Your task to perform on an android device: When is my next meeting? Image 0: 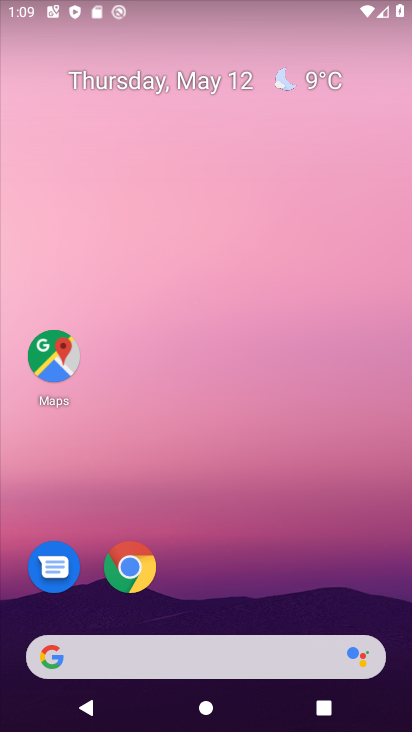
Step 0: drag from (210, 583) to (258, 114)
Your task to perform on an android device: When is my next meeting? Image 1: 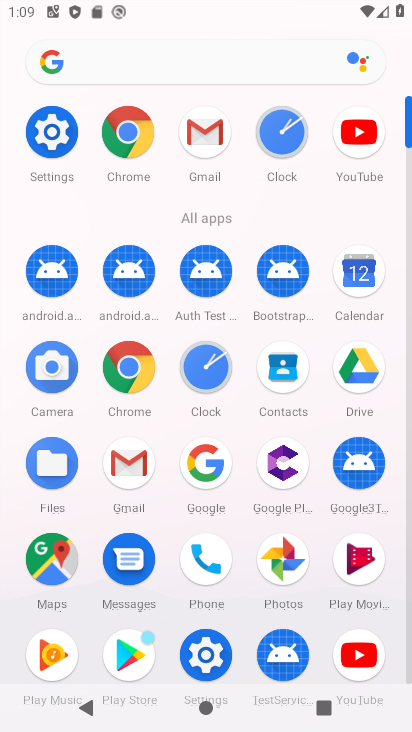
Step 1: click (358, 277)
Your task to perform on an android device: When is my next meeting? Image 2: 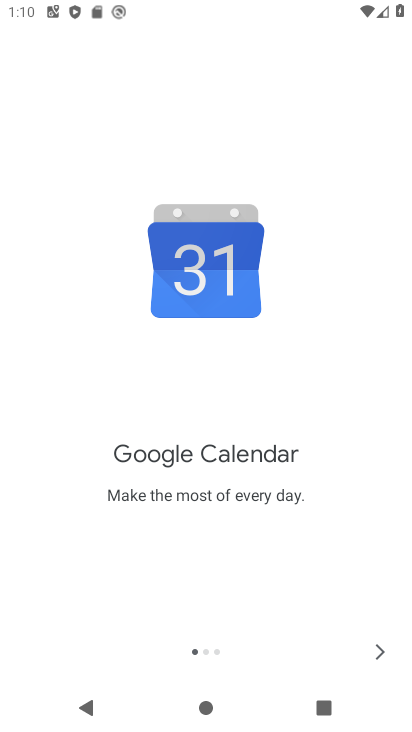
Step 2: click (382, 638)
Your task to perform on an android device: When is my next meeting? Image 3: 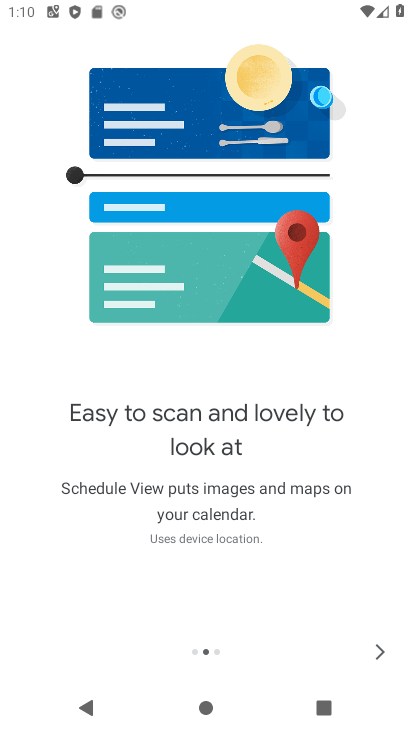
Step 3: click (372, 642)
Your task to perform on an android device: When is my next meeting? Image 4: 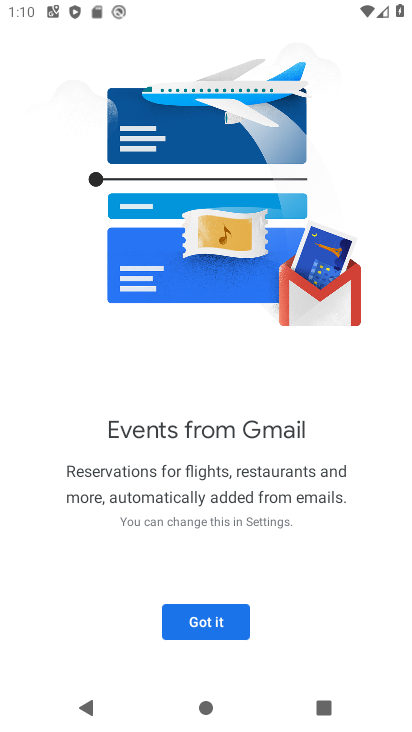
Step 4: click (209, 626)
Your task to perform on an android device: When is my next meeting? Image 5: 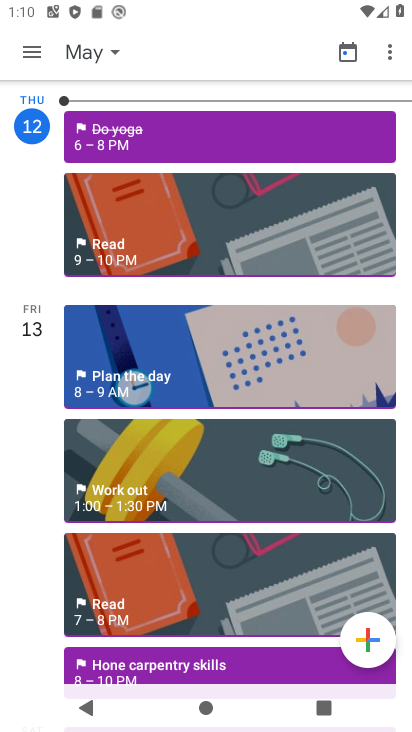
Step 5: task complete